Your task to perform on an android device: open app "Instagram" (install if not already installed) Image 0: 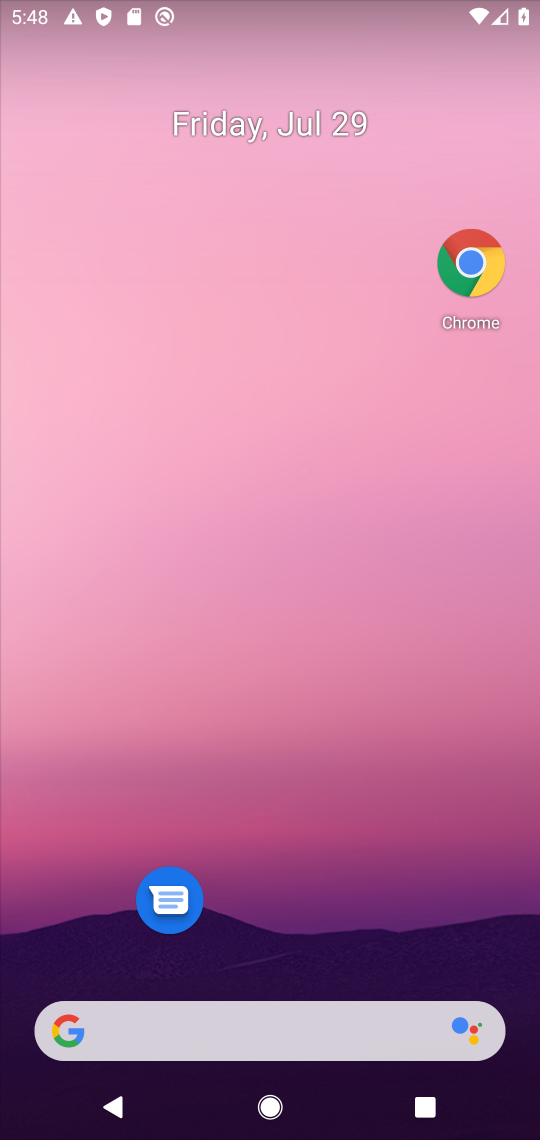
Step 0: drag from (326, 1027) to (309, 31)
Your task to perform on an android device: open app "Instagram" (install if not already installed) Image 1: 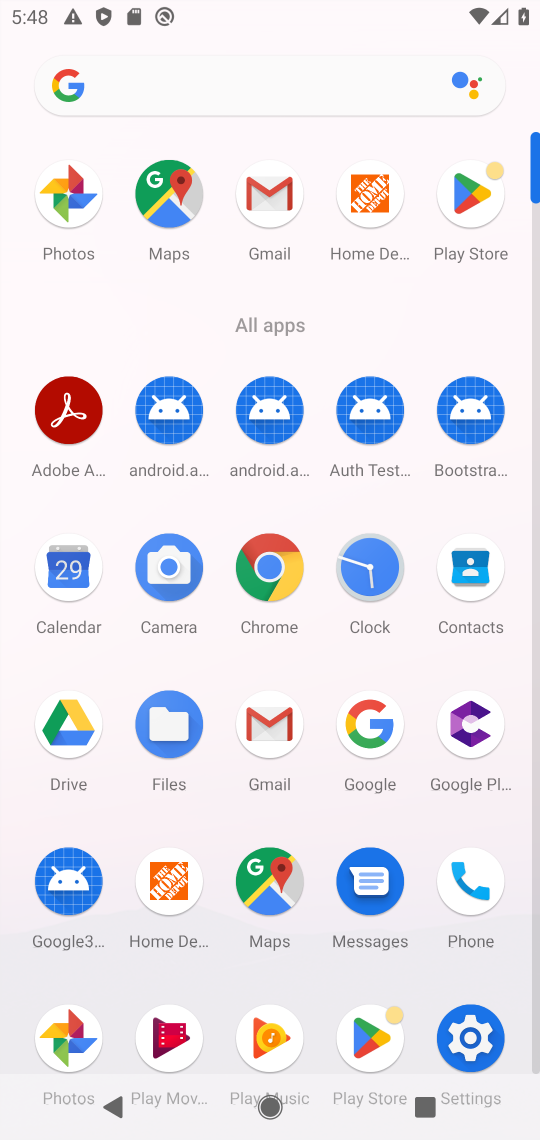
Step 1: click (484, 190)
Your task to perform on an android device: open app "Instagram" (install if not already installed) Image 2: 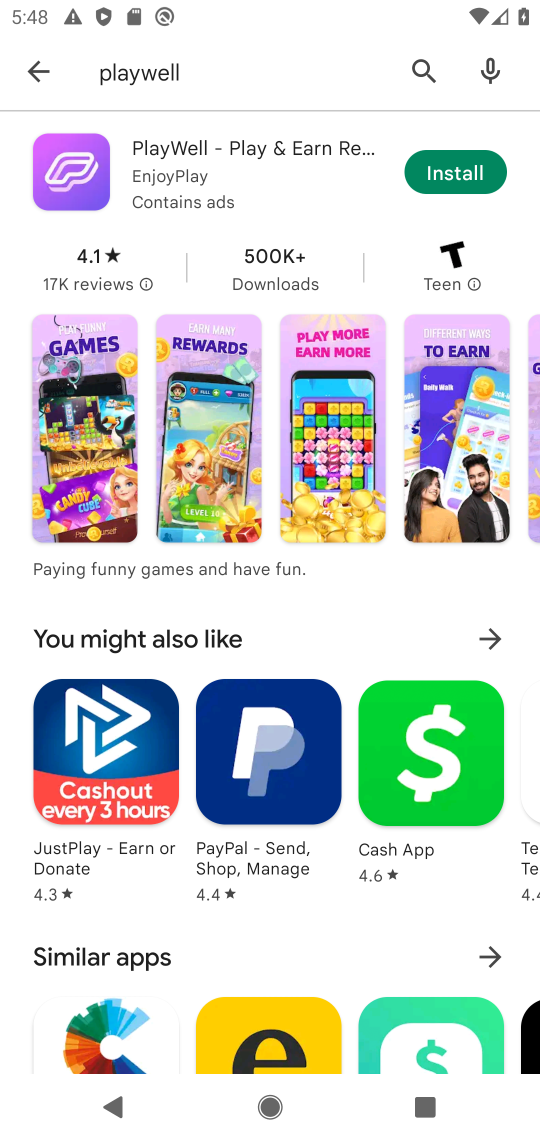
Step 2: click (417, 68)
Your task to perform on an android device: open app "Instagram" (install if not already installed) Image 3: 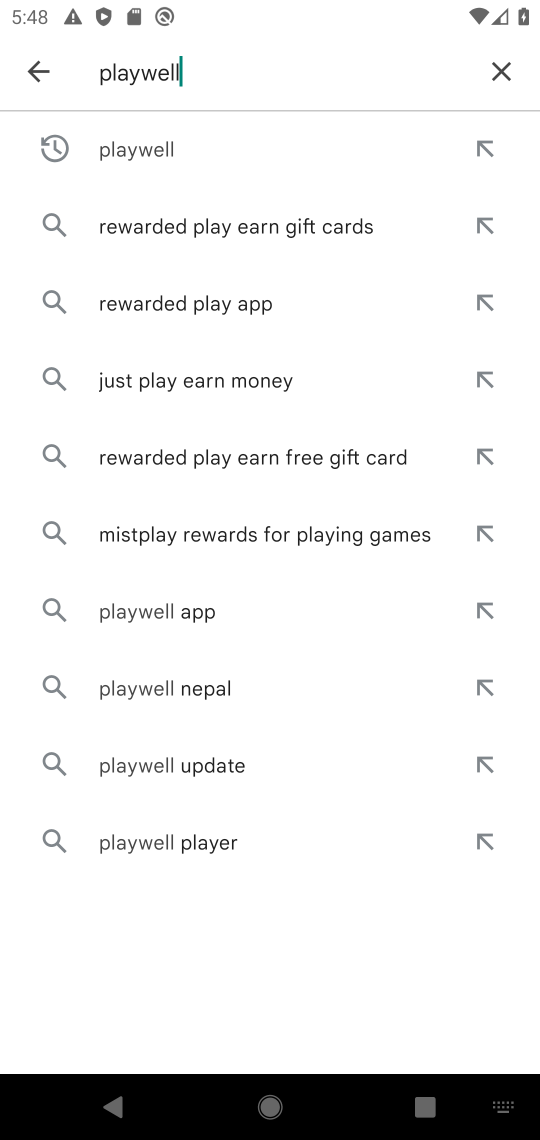
Step 3: click (495, 68)
Your task to perform on an android device: open app "Instagram" (install if not already installed) Image 4: 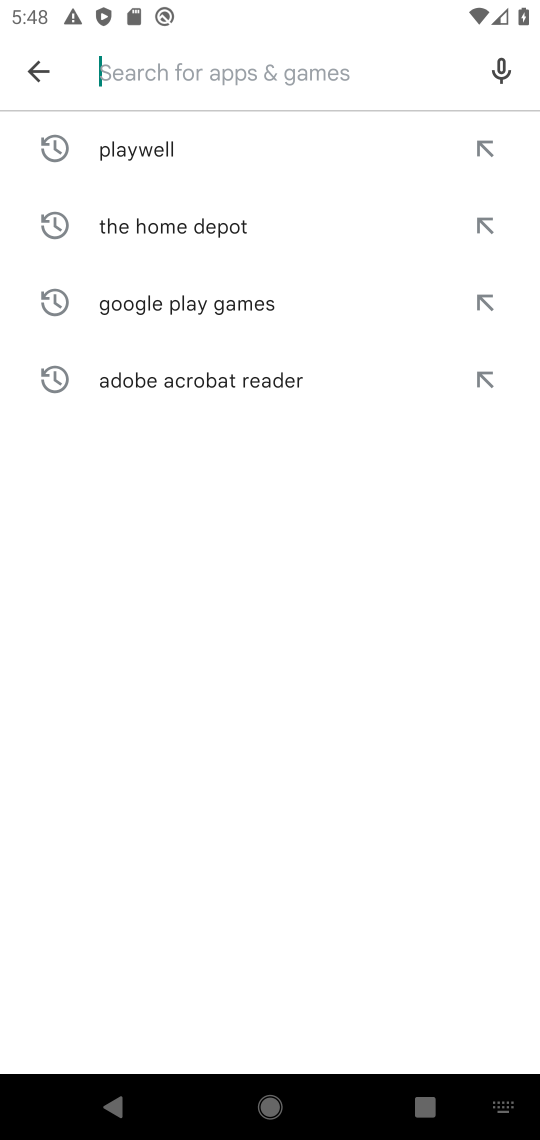
Step 4: type "instagram"
Your task to perform on an android device: open app "Instagram" (install if not already installed) Image 5: 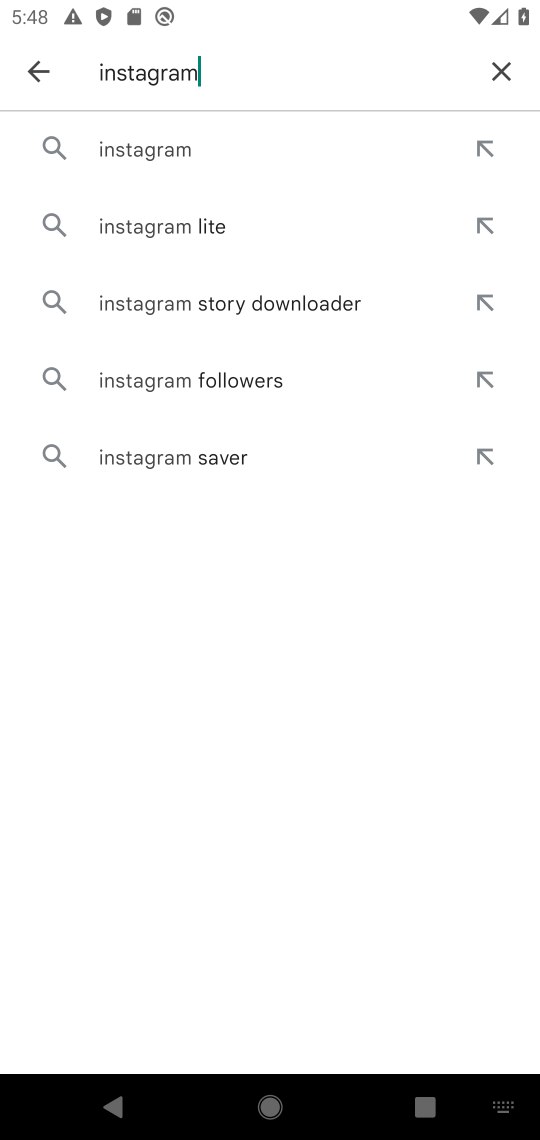
Step 5: click (204, 151)
Your task to perform on an android device: open app "Instagram" (install if not already installed) Image 6: 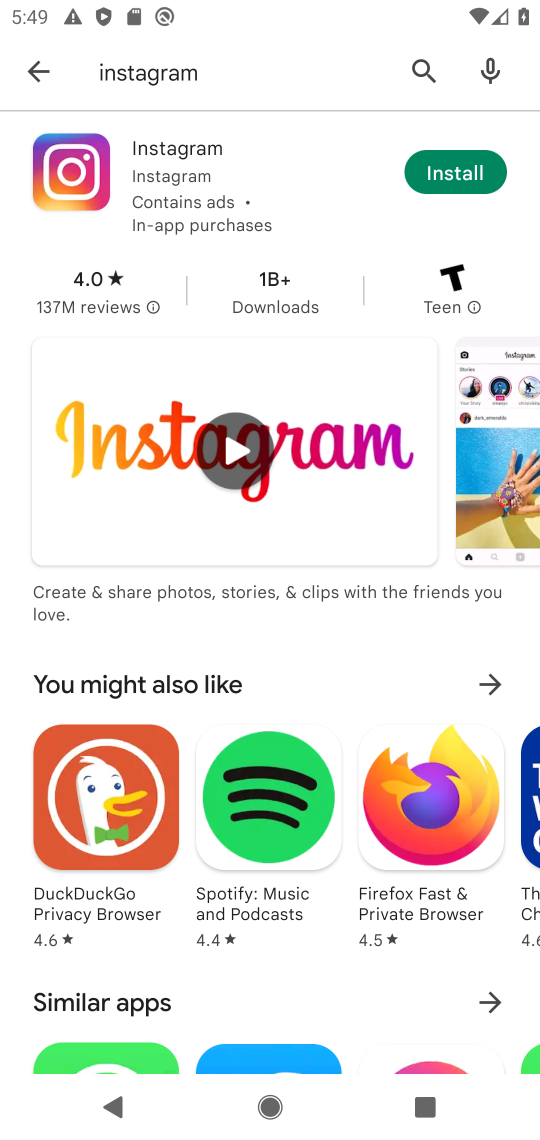
Step 6: click (443, 177)
Your task to perform on an android device: open app "Instagram" (install if not already installed) Image 7: 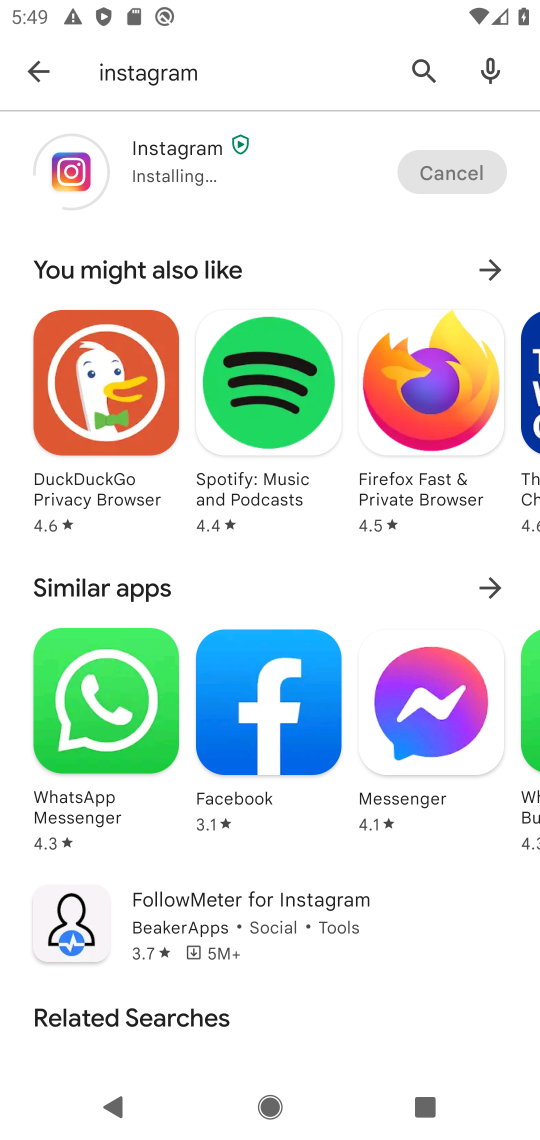
Step 7: task complete